Your task to perform on an android device: Go to Android settings Image 0: 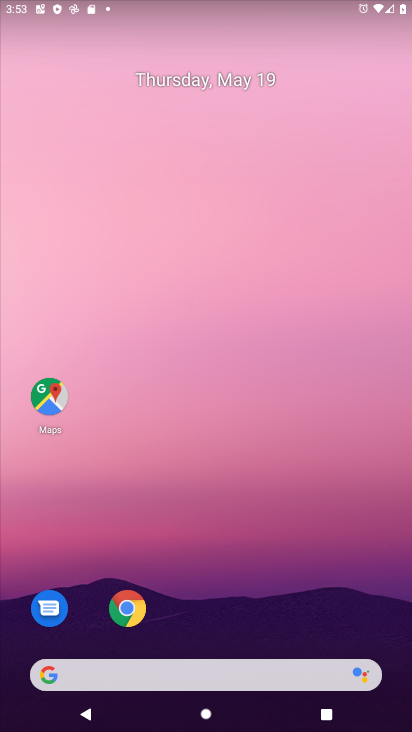
Step 0: drag from (274, 639) to (219, 4)
Your task to perform on an android device: Go to Android settings Image 1: 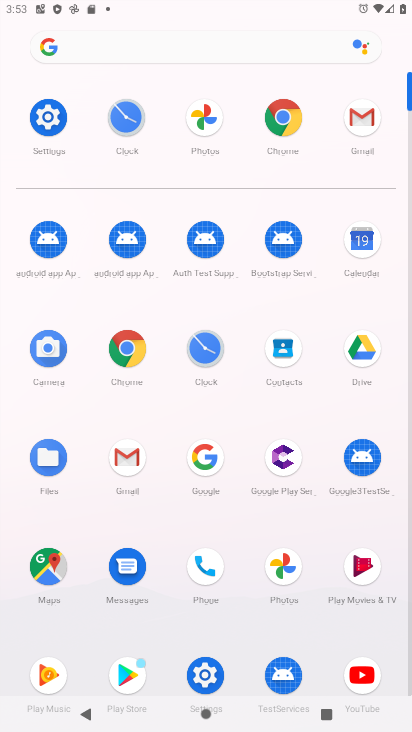
Step 1: click (56, 169)
Your task to perform on an android device: Go to Android settings Image 2: 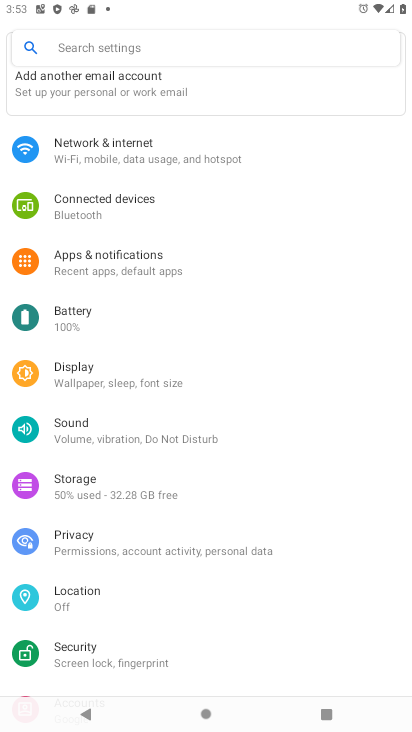
Step 2: task complete